Your task to perform on an android device: empty trash in google photos Image 0: 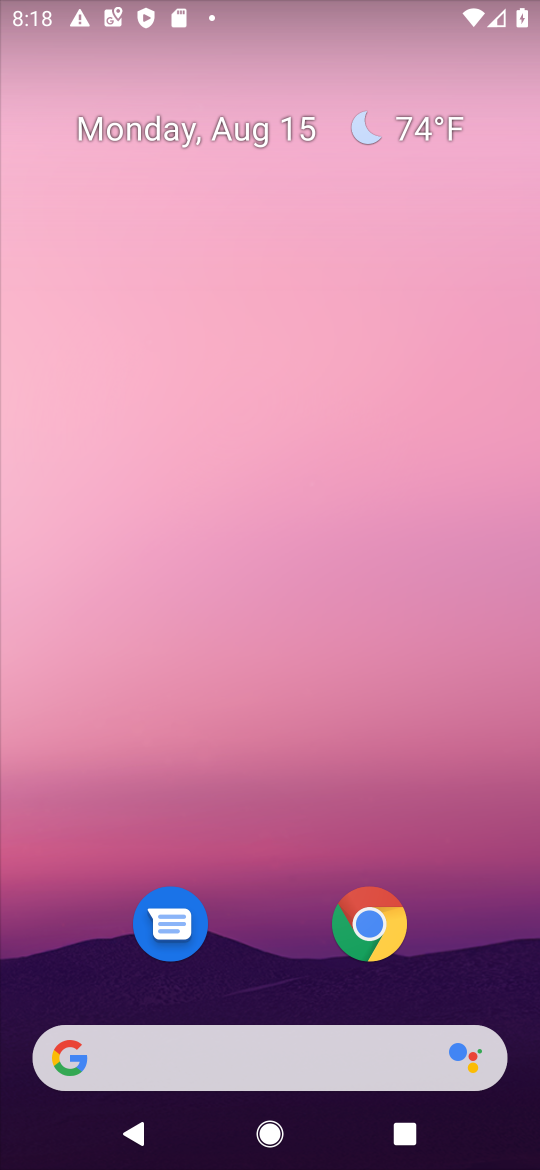
Step 0: drag from (478, 976) to (450, 301)
Your task to perform on an android device: empty trash in google photos Image 1: 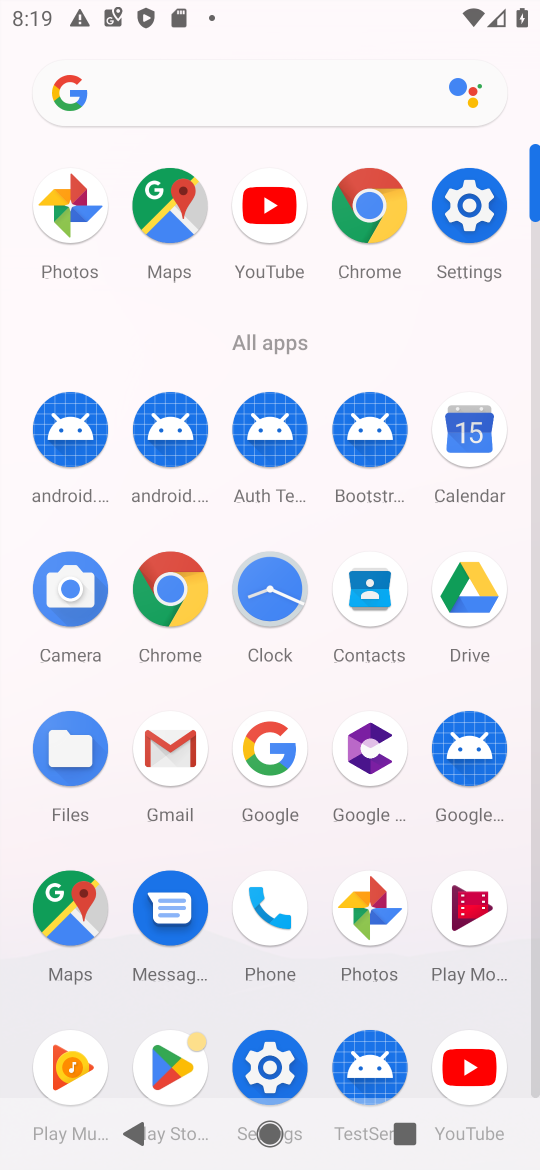
Step 1: click (372, 914)
Your task to perform on an android device: empty trash in google photos Image 2: 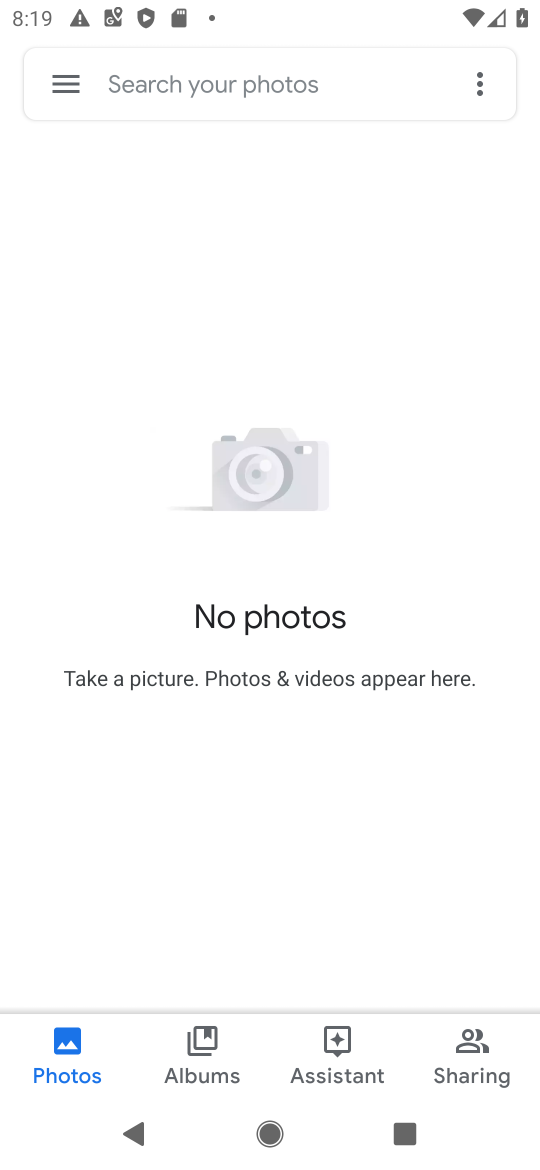
Step 2: click (65, 88)
Your task to perform on an android device: empty trash in google photos Image 3: 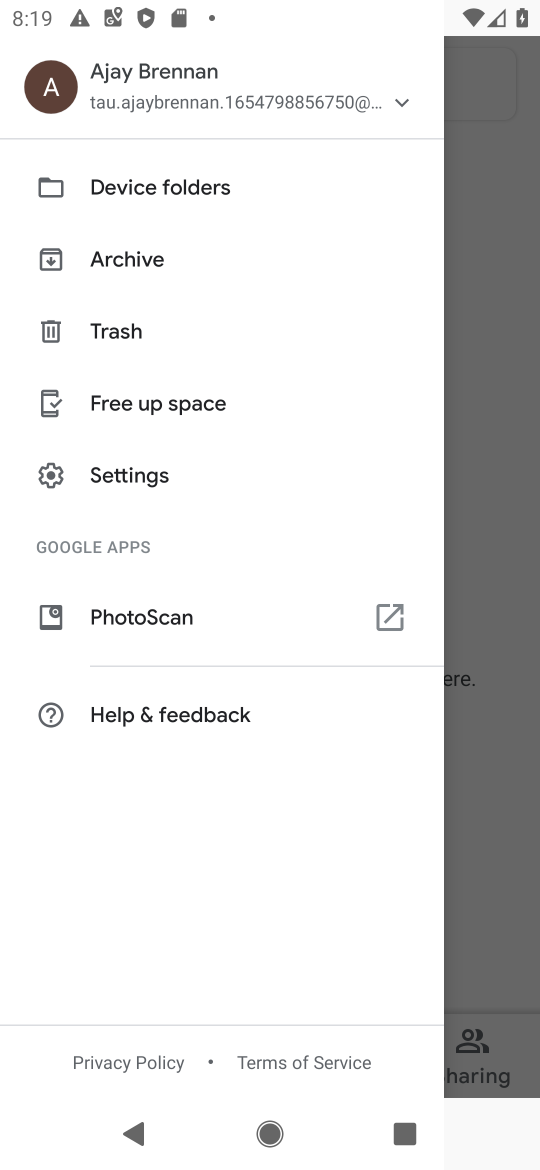
Step 3: click (118, 337)
Your task to perform on an android device: empty trash in google photos Image 4: 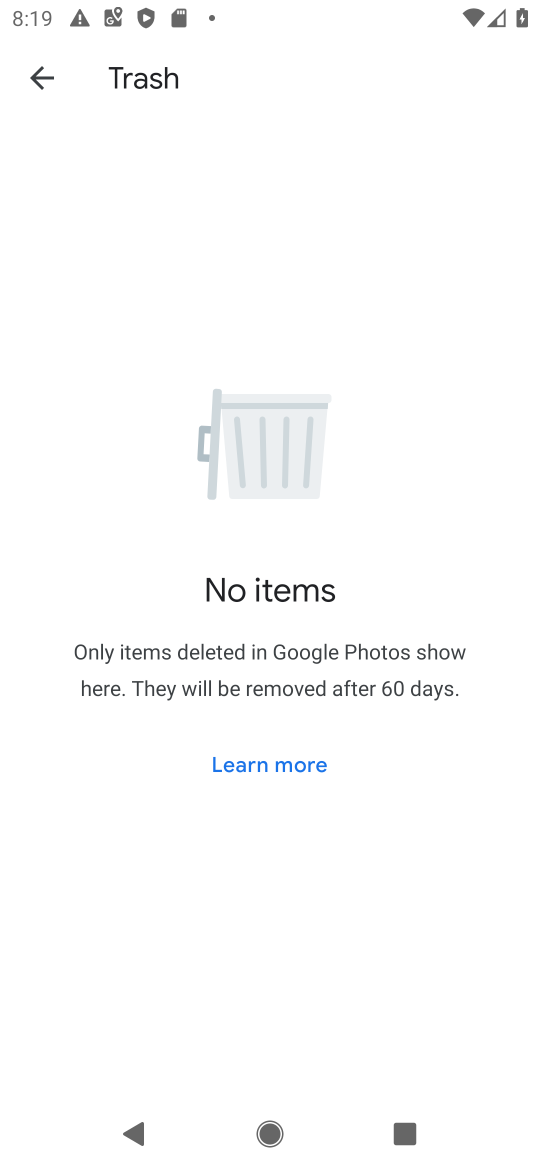
Step 4: task complete